Your task to perform on an android device: turn on showing notifications on the lock screen Image 0: 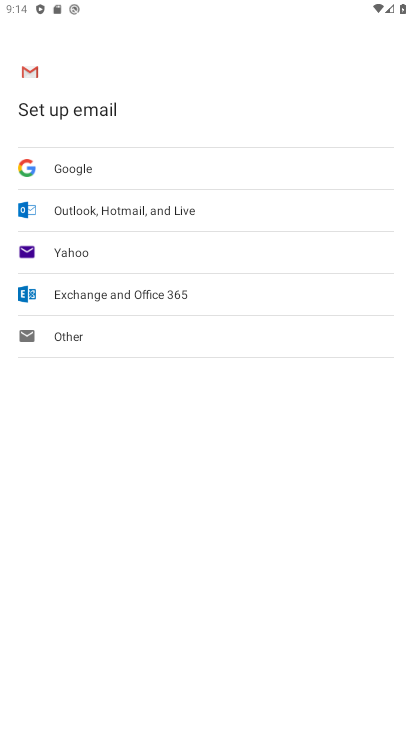
Step 0: press home button
Your task to perform on an android device: turn on showing notifications on the lock screen Image 1: 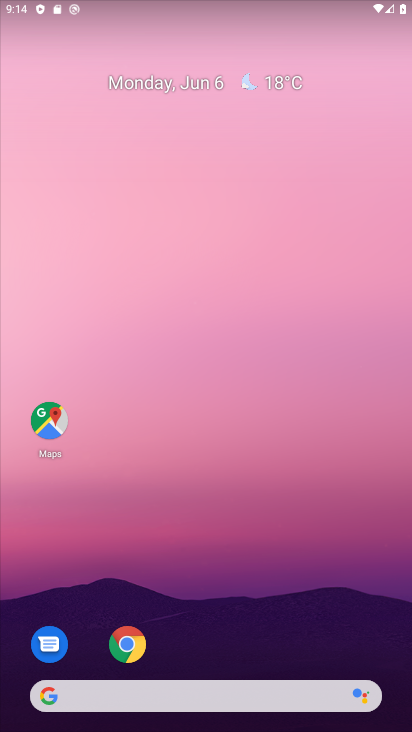
Step 1: drag from (348, 644) to (310, 185)
Your task to perform on an android device: turn on showing notifications on the lock screen Image 2: 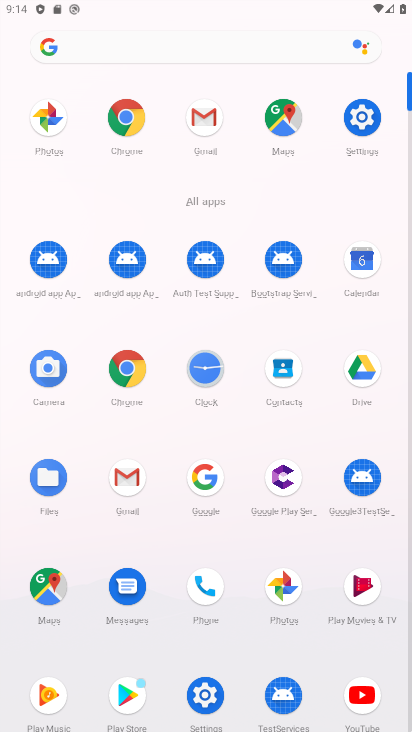
Step 2: click (212, 712)
Your task to perform on an android device: turn on showing notifications on the lock screen Image 3: 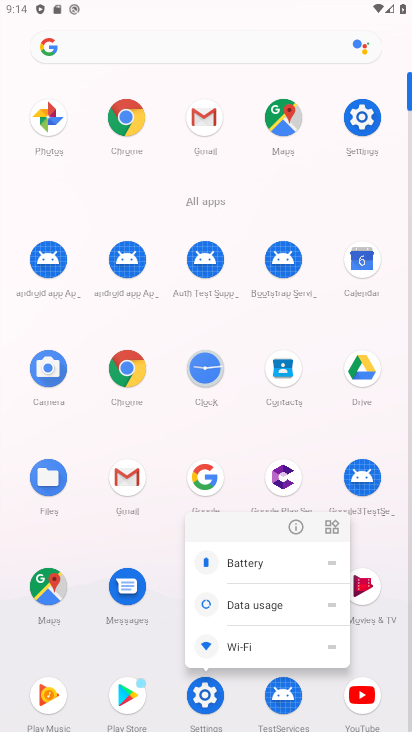
Step 3: click (203, 708)
Your task to perform on an android device: turn on showing notifications on the lock screen Image 4: 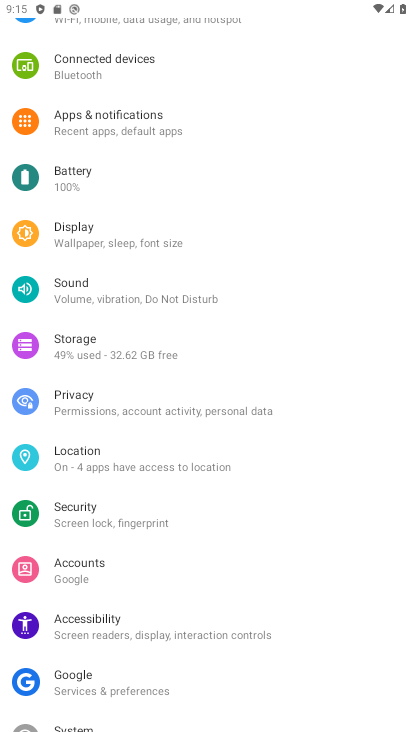
Step 4: click (120, 117)
Your task to perform on an android device: turn on showing notifications on the lock screen Image 5: 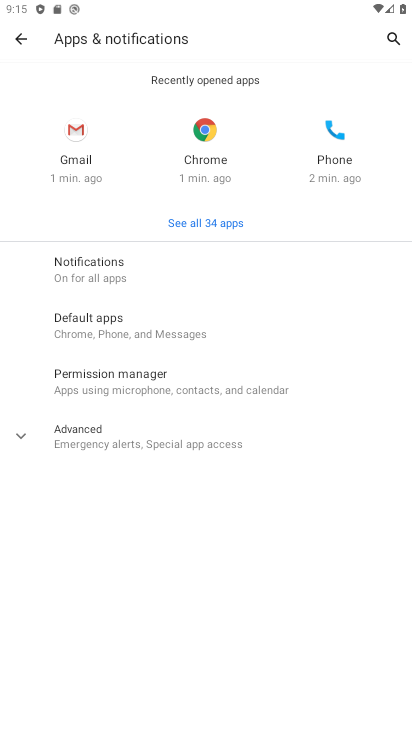
Step 5: click (101, 257)
Your task to perform on an android device: turn on showing notifications on the lock screen Image 6: 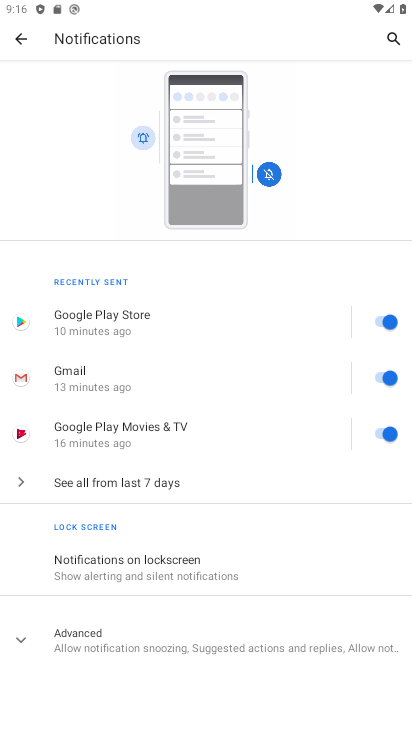
Step 6: click (171, 632)
Your task to perform on an android device: turn on showing notifications on the lock screen Image 7: 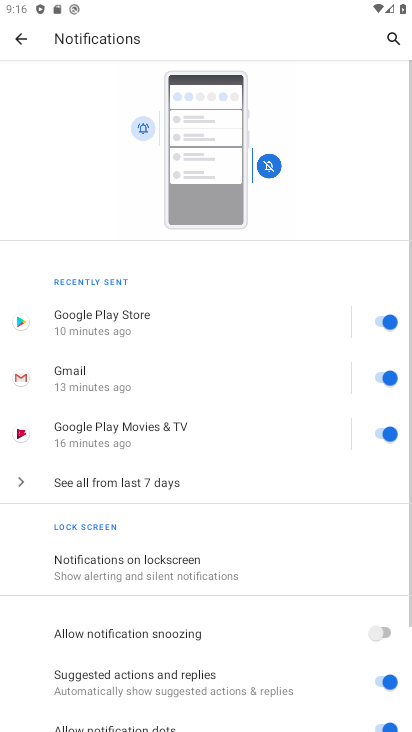
Step 7: drag from (218, 712) to (223, 460)
Your task to perform on an android device: turn on showing notifications on the lock screen Image 8: 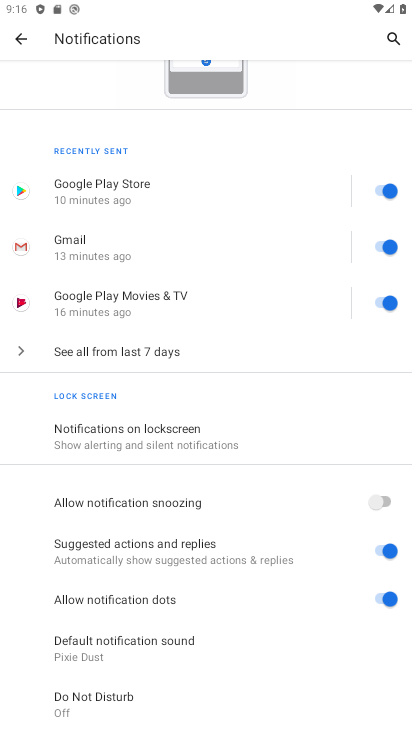
Step 8: click (190, 443)
Your task to perform on an android device: turn on showing notifications on the lock screen Image 9: 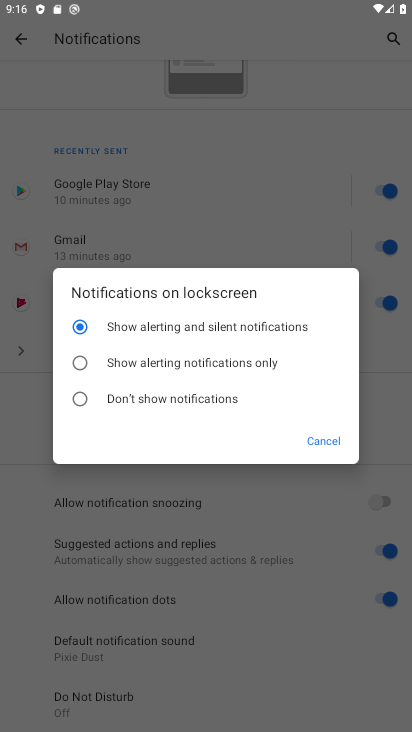
Step 9: task complete